Your task to perform on an android device: check the backup settings in the google photos Image 0: 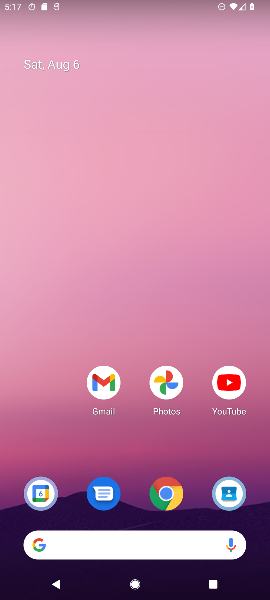
Step 0: drag from (121, 260) to (115, 208)
Your task to perform on an android device: check the backup settings in the google photos Image 1: 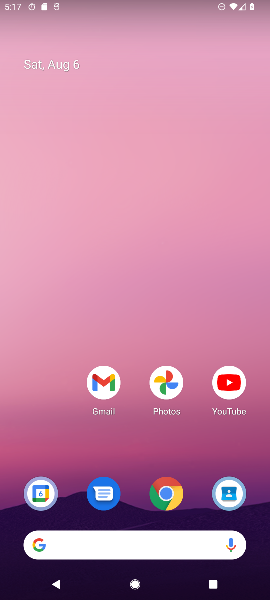
Step 1: click (165, 184)
Your task to perform on an android device: check the backup settings in the google photos Image 2: 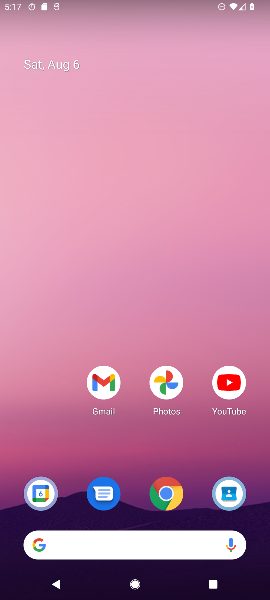
Step 2: drag from (181, 548) to (183, 194)
Your task to perform on an android device: check the backup settings in the google photos Image 3: 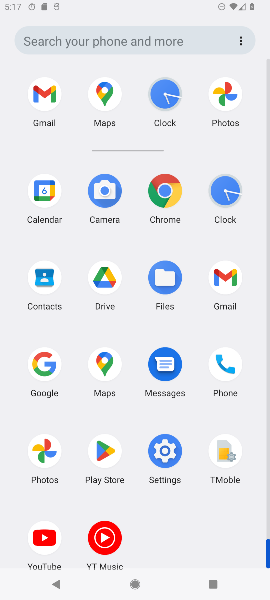
Step 3: drag from (81, 469) to (81, 242)
Your task to perform on an android device: check the backup settings in the google photos Image 4: 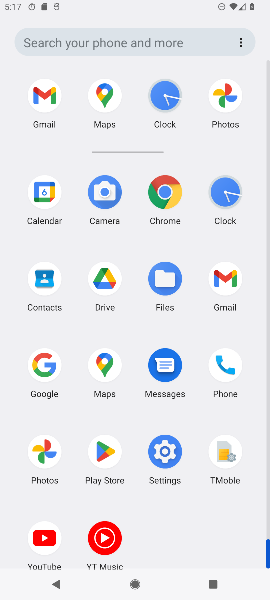
Step 4: drag from (117, 407) to (132, 275)
Your task to perform on an android device: check the backup settings in the google photos Image 5: 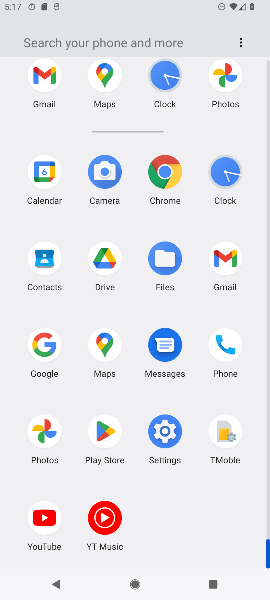
Step 5: click (232, 68)
Your task to perform on an android device: check the backup settings in the google photos Image 6: 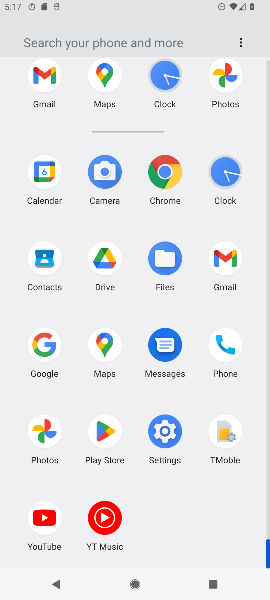
Step 6: click (228, 72)
Your task to perform on an android device: check the backup settings in the google photos Image 7: 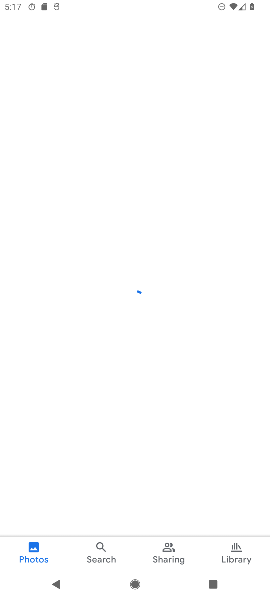
Step 7: click (230, 79)
Your task to perform on an android device: check the backup settings in the google photos Image 8: 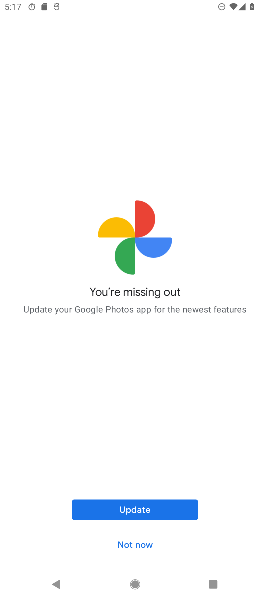
Step 8: click (131, 539)
Your task to perform on an android device: check the backup settings in the google photos Image 9: 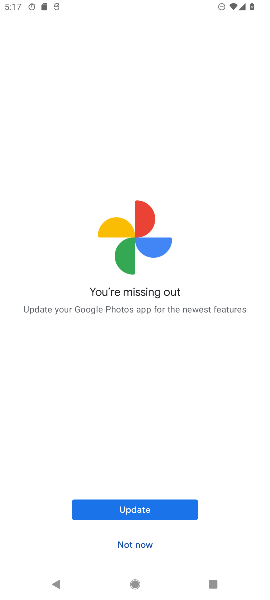
Step 9: click (131, 539)
Your task to perform on an android device: check the backup settings in the google photos Image 10: 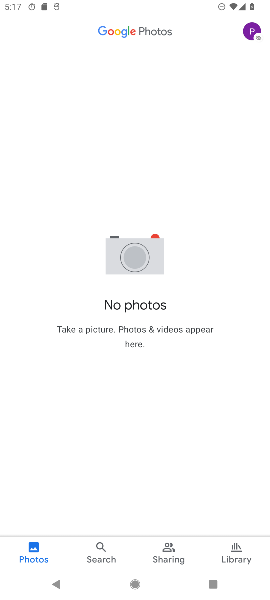
Step 10: click (248, 36)
Your task to perform on an android device: check the backup settings in the google photos Image 11: 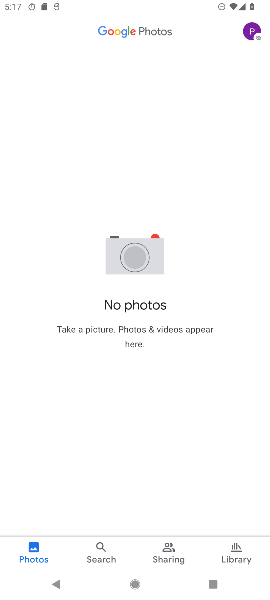
Step 11: click (250, 34)
Your task to perform on an android device: check the backup settings in the google photos Image 12: 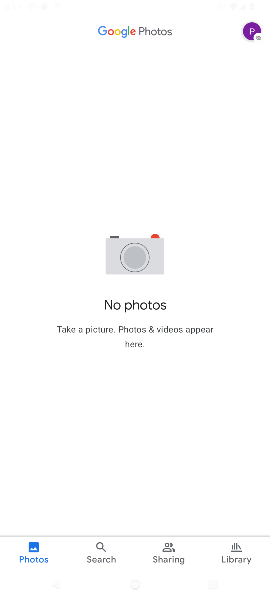
Step 12: click (251, 33)
Your task to perform on an android device: check the backup settings in the google photos Image 13: 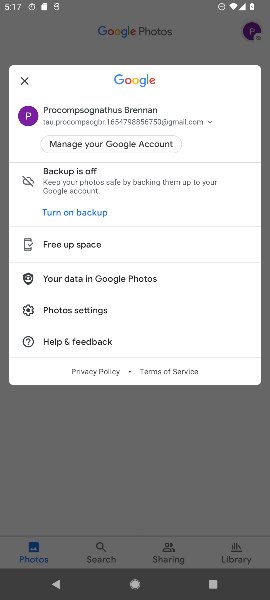
Step 13: click (251, 33)
Your task to perform on an android device: check the backup settings in the google photos Image 14: 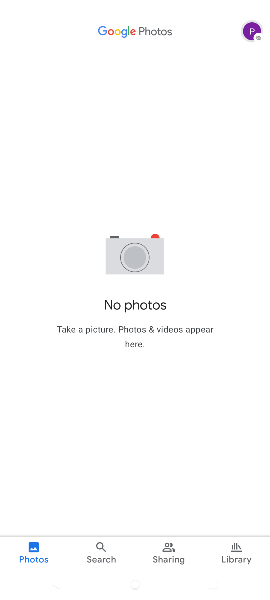
Step 14: click (253, 32)
Your task to perform on an android device: check the backup settings in the google photos Image 15: 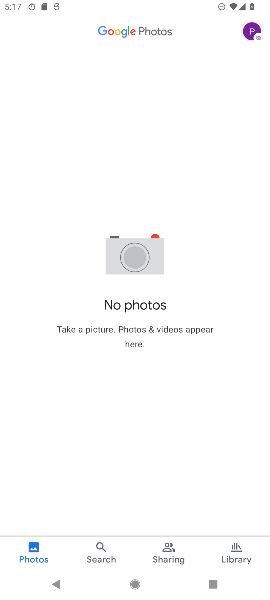
Step 15: click (253, 31)
Your task to perform on an android device: check the backup settings in the google photos Image 16: 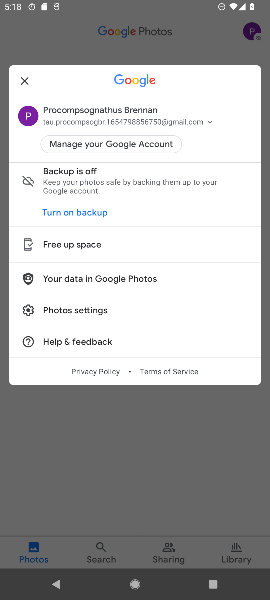
Step 16: click (83, 316)
Your task to perform on an android device: check the backup settings in the google photos Image 17: 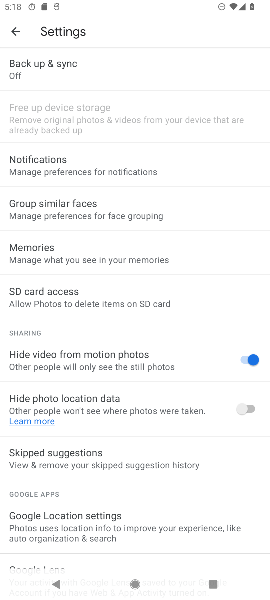
Step 17: click (169, 148)
Your task to perform on an android device: check the backup settings in the google photos Image 18: 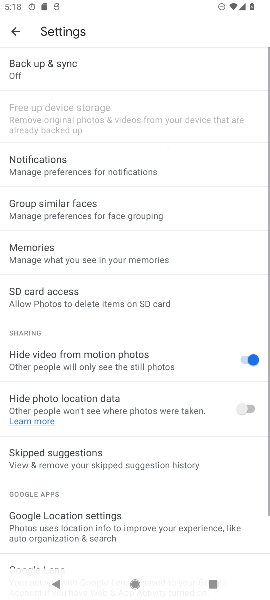
Step 18: drag from (186, 305) to (152, 171)
Your task to perform on an android device: check the backup settings in the google photos Image 19: 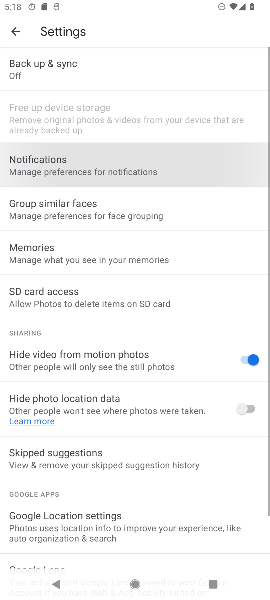
Step 19: click (151, 153)
Your task to perform on an android device: check the backup settings in the google photos Image 20: 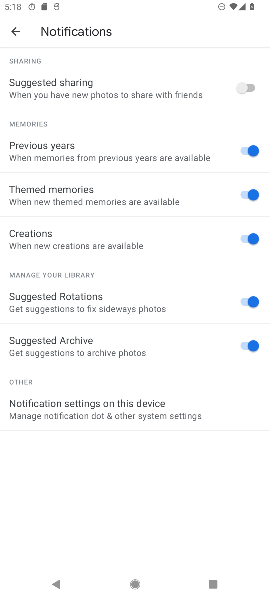
Step 20: drag from (187, 299) to (167, 70)
Your task to perform on an android device: check the backup settings in the google photos Image 21: 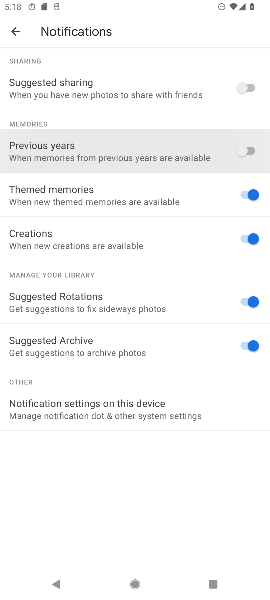
Step 21: drag from (217, 338) to (177, 111)
Your task to perform on an android device: check the backup settings in the google photos Image 22: 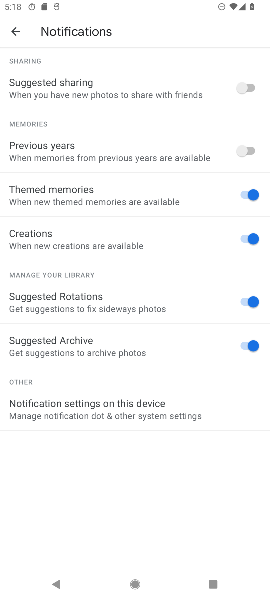
Step 22: drag from (122, 131) to (115, 394)
Your task to perform on an android device: check the backup settings in the google photos Image 23: 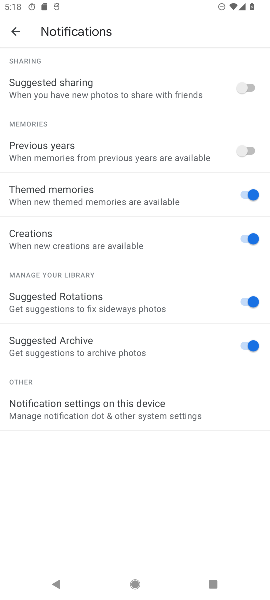
Step 23: drag from (87, 174) to (122, 354)
Your task to perform on an android device: check the backup settings in the google photos Image 24: 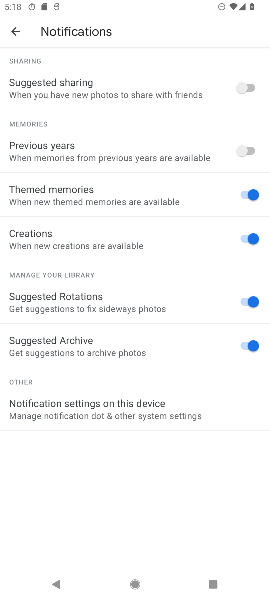
Step 24: click (110, 380)
Your task to perform on an android device: check the backup settings in the google photos Image 25: 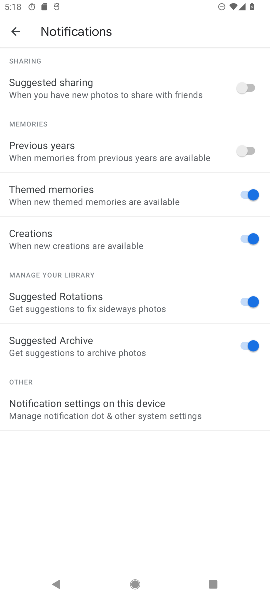
Step 25: drag from (119, 92) to (139, 522)
Your task to perform on an android device: check the backup settings in the google photos Image 26: 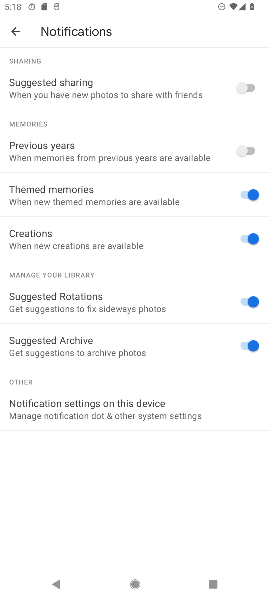
Step 26: drag from (119, 437) to (143, 533)
Your task to perform on an android device: check the backup settings in the google photos Image 27: 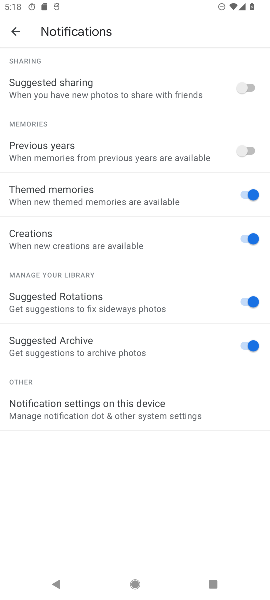
Step 27: drag from (72, 185) to (112, 433)
Your task to perform on an android device: check the backup settings in the google photos Image 28: 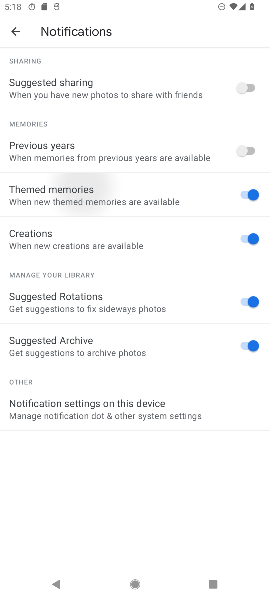
Step 28: drag from (82, 129) to (103, 419)
Your task to perform on an android device: check the backup settings in the google photos Image 29: 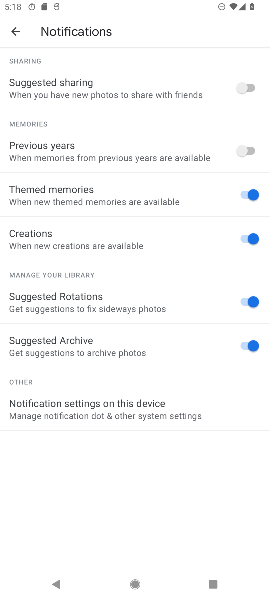
Step 29: click (12, 30)
Your task to perform on an android device: check the backup settings in the google photos Image 30: 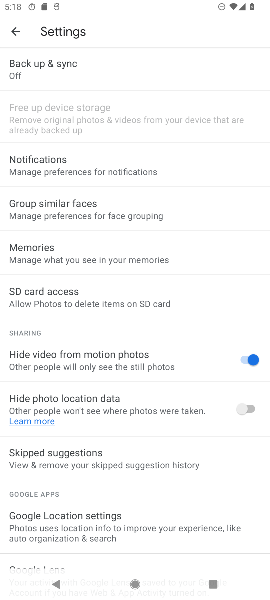
Step 30: click (34, 70)
Your task to perform on an android device: check the backup settings in the google photos Image 31: 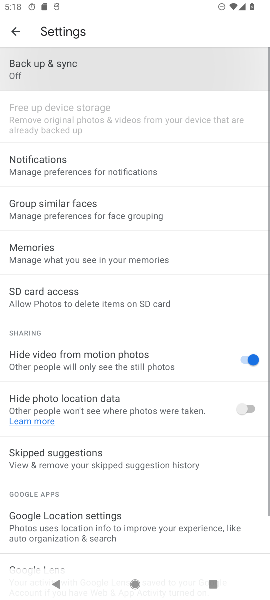
Step 31: click (34, 70)
Your task to perform on an android device: check the backup settings in the google photos Image 32: 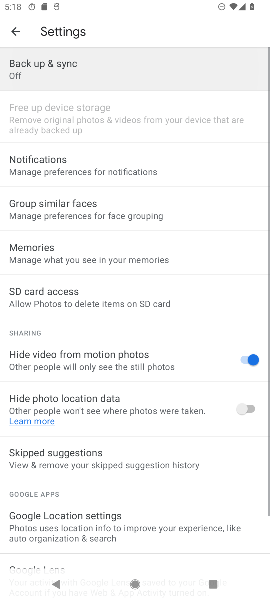
Step 32: click (34, 70)
Your task to perform on an android device: check the backup settings in the google photos Image 33: 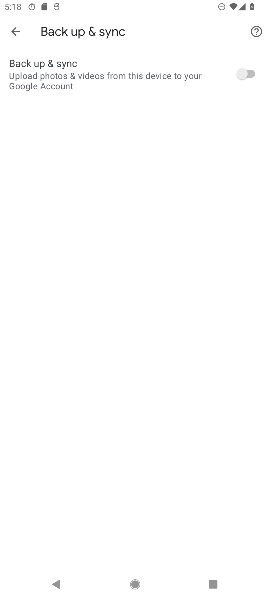
Step 33: click (237, 78)
Your task to perform on an android device: check the backup settings in the google photos Image 34: 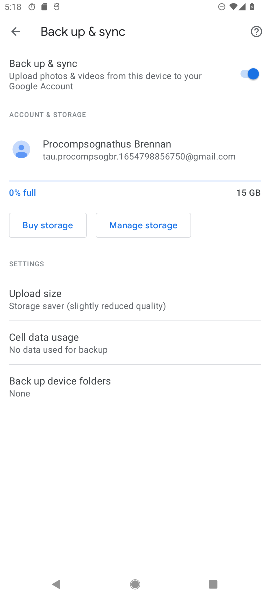
Step 34: click (43, 72)
Your task to perform on an android device: check the backup settings in the google photos Image 35: 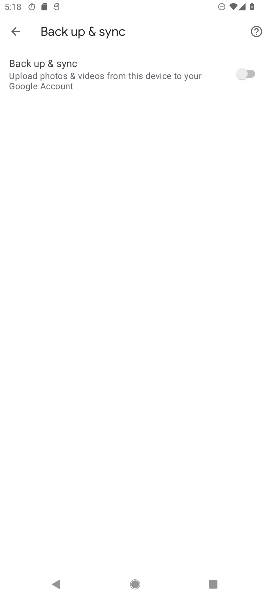
Step 35: click (243, 74)
Your task to perform on an android device: check the backup settings in the google photos Image 36: 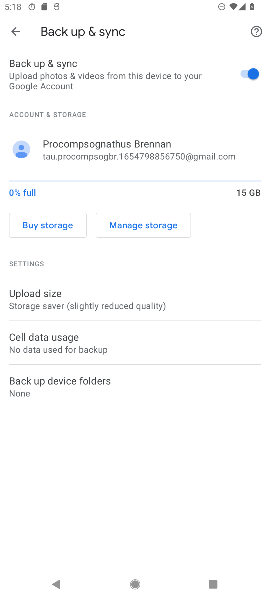
Step 36: task complete